Your task to perform on an android device: uninstall "Pandora - Music & Podcasts" Image 0: 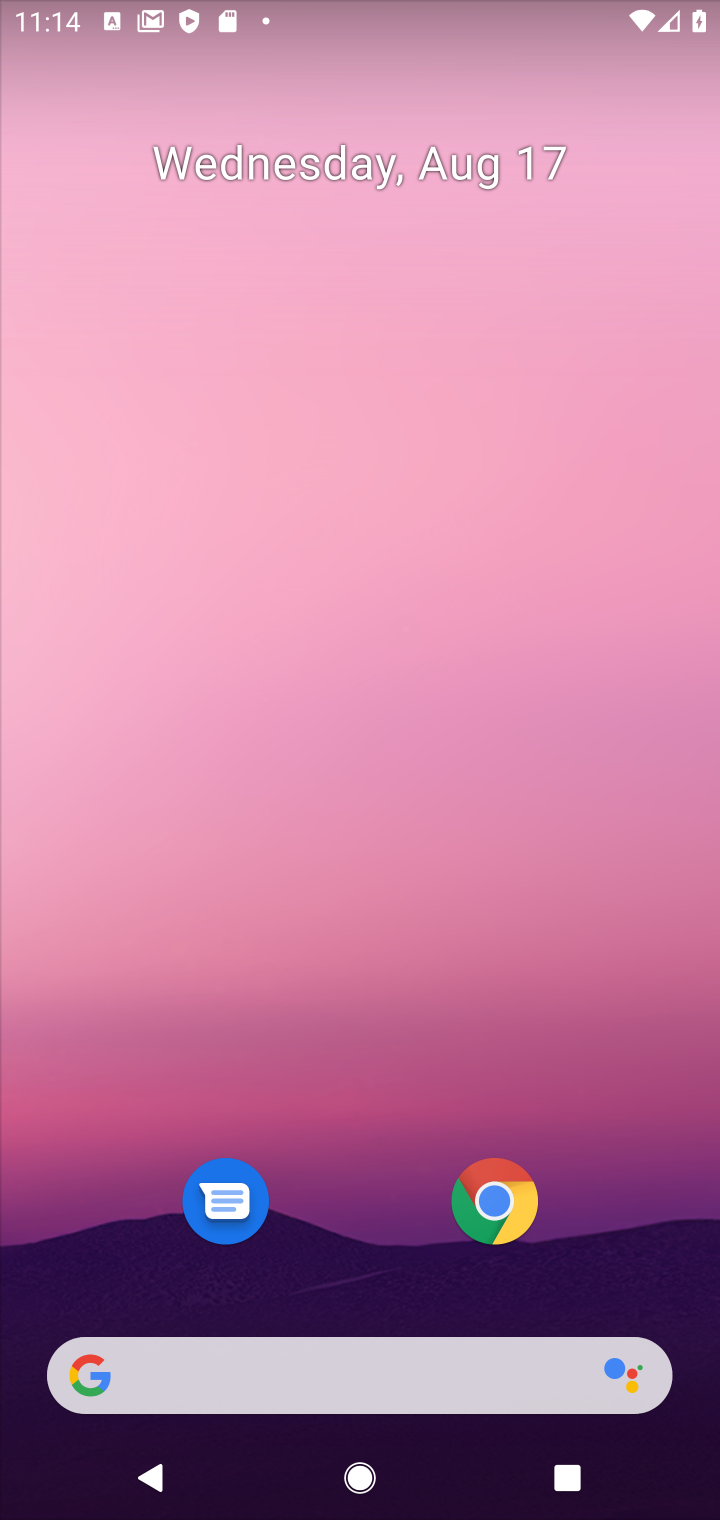
Step 0: drag from (358, 1157) to (494, 107)
Your task to perform on an android device: uninstall "Pandora - Music & Podcasts" Image 1: 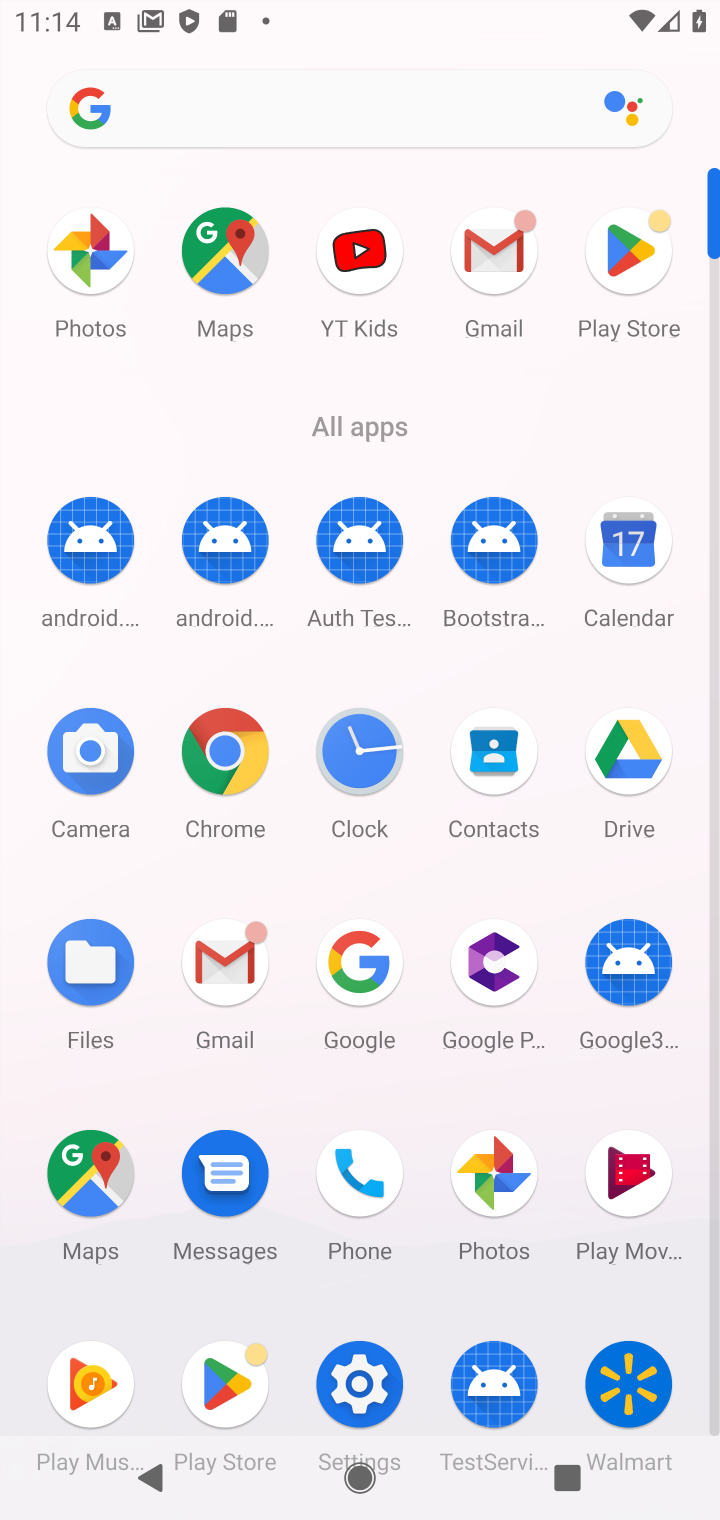
Step 1: click (645, 289)
Your task to perform on an android device: uninstall "Pandora - Music & Podcasts" Image 2: 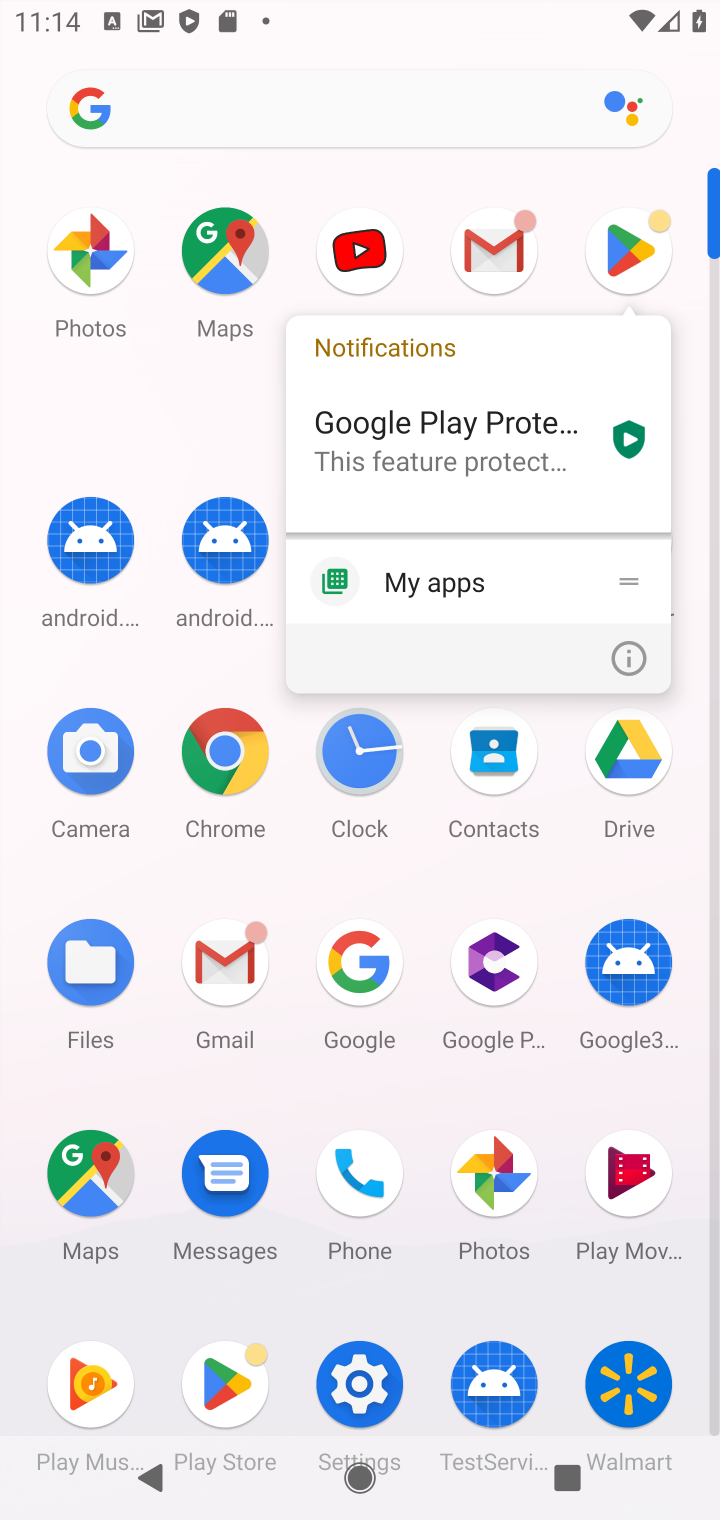
Step 2: click (647, 214)
Your task to perform on an android device: uninstall "Pandora - Music & Podcasts" Image 3: 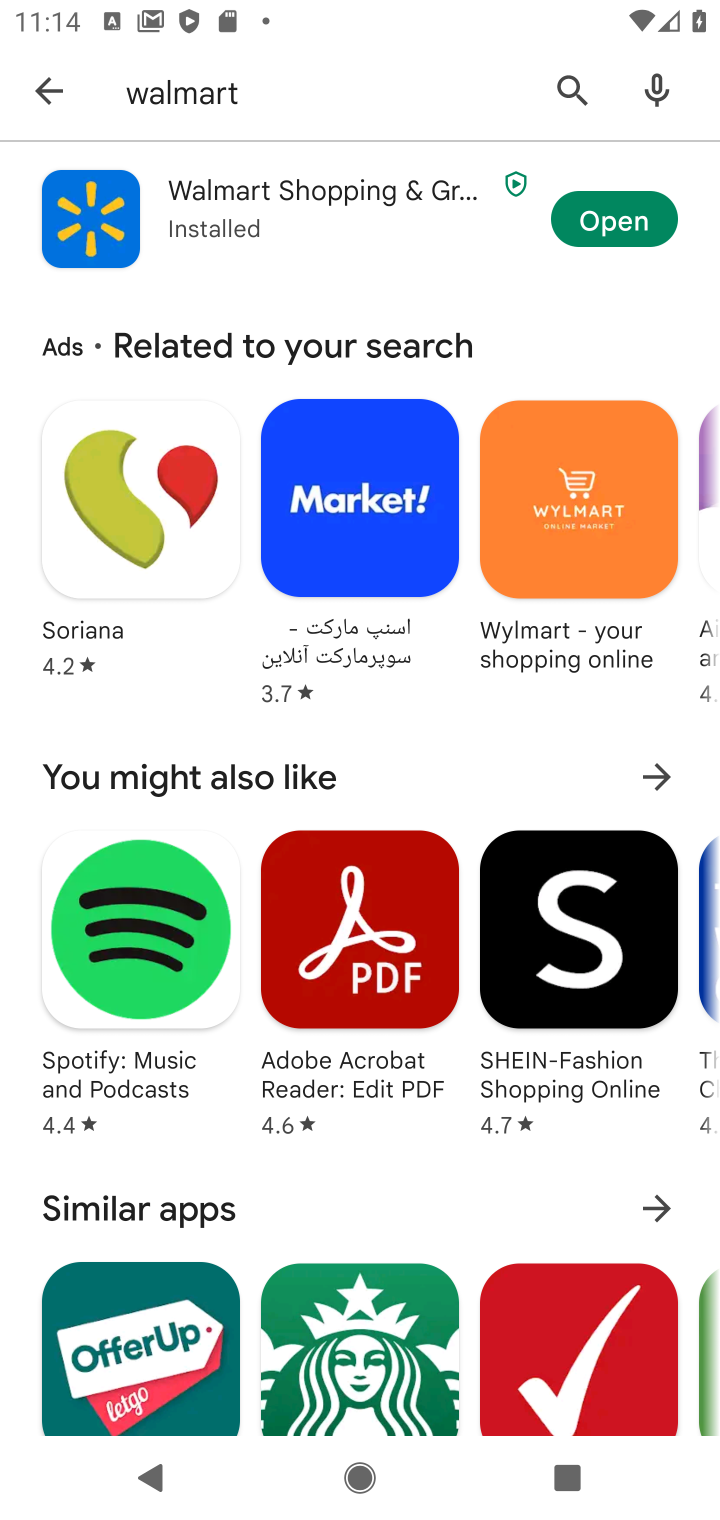
Step 3: click (302, 95)
Your task to perform on an android device: uninstall "Pandora - Music & Podcasts" Image 4: 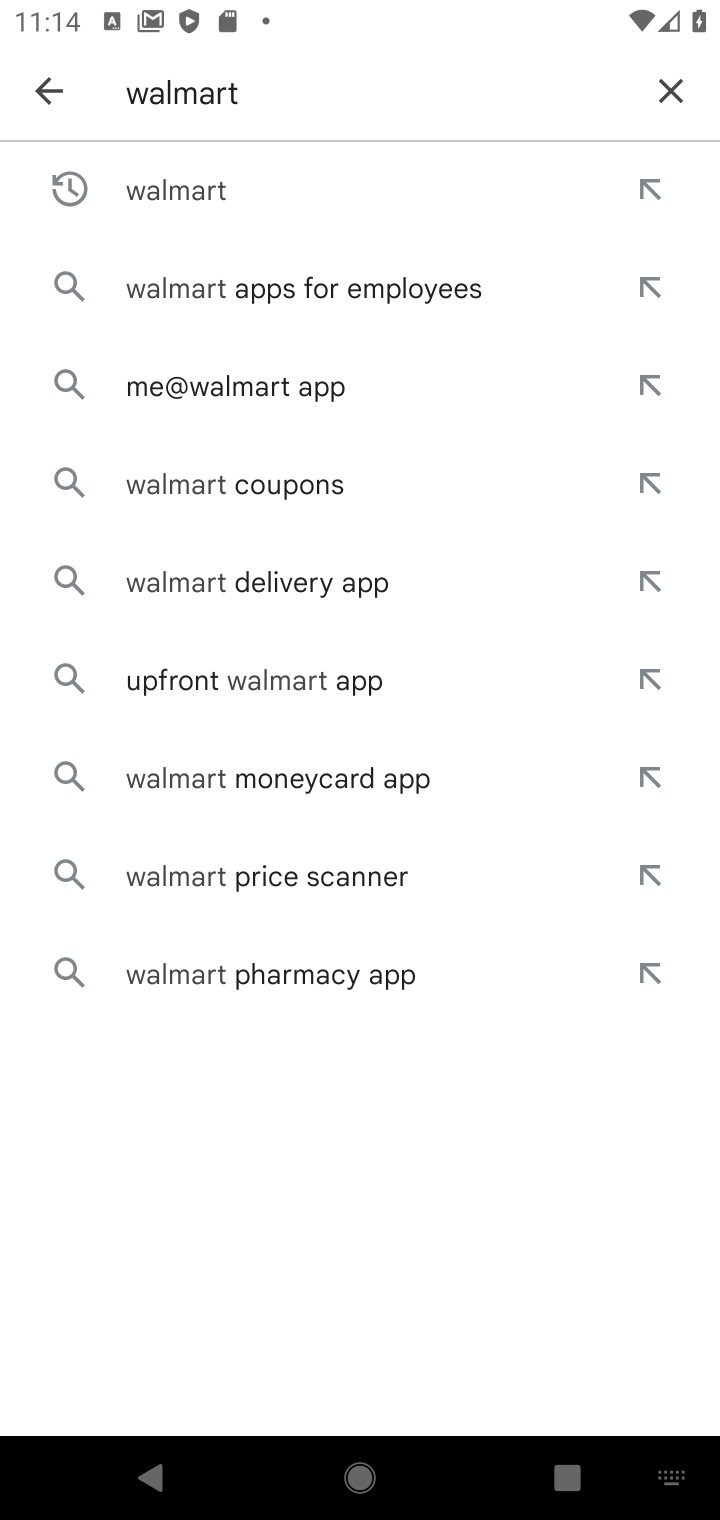
Step 4: click (671, 83)
Your task to perform on an android device: uninstall "Pandora - Music & Podcasts" Image 5: 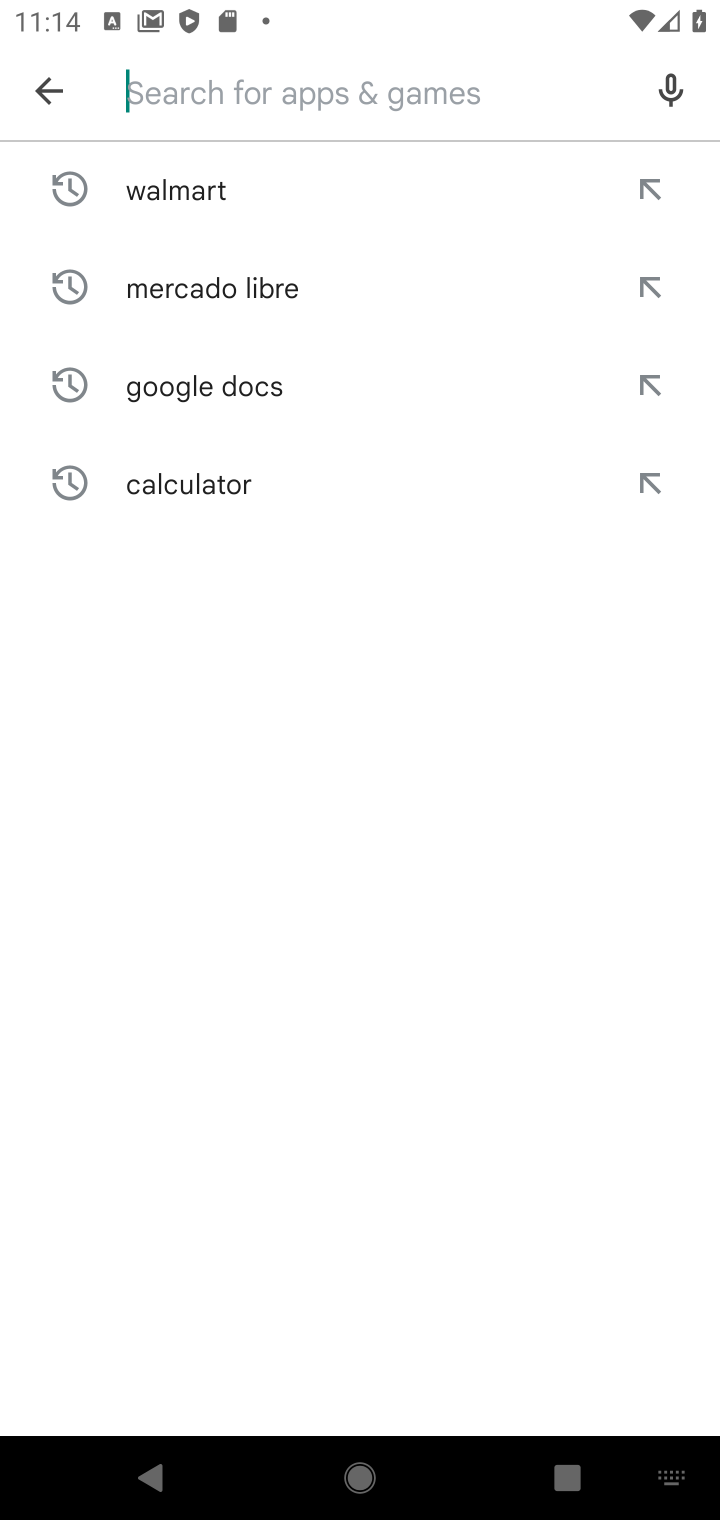
Step 5: type "Pandora"
Your task to perform on an android device: uninstall "Pandora - Music & Podcasts" Image 6: 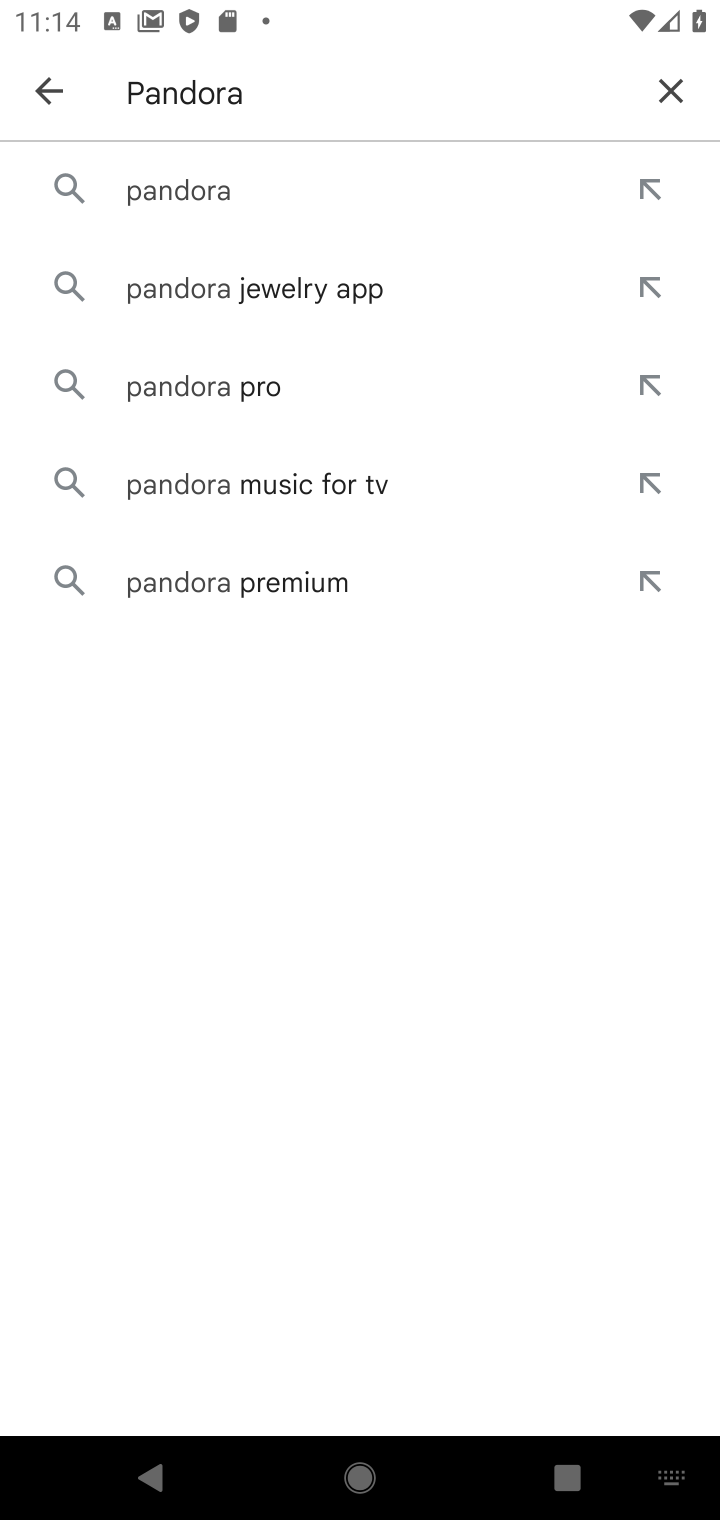
Step 6: click (280, 163)
Your task to perform on an android device: uninstall "Pandora - Music & Podcasts" Image 7: 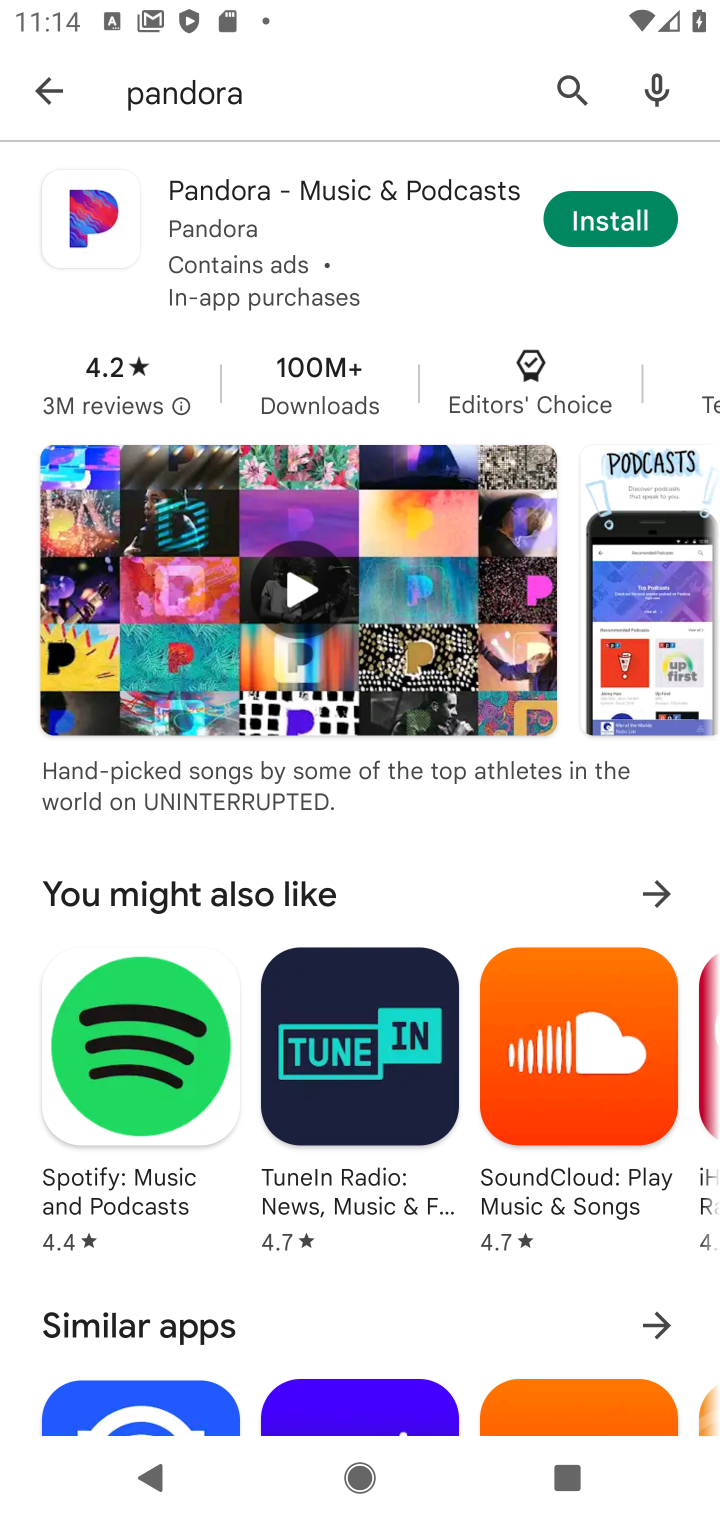
Step 7: task complete